Your task to perform on an android device: turn off location Image 0: 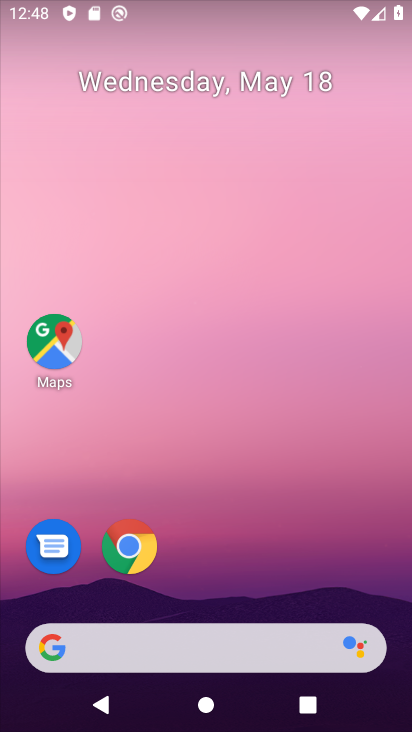
Step 0: drag from (271, 618) to (308, 94)
Your task to perform on an android device: turn off location Image 1: 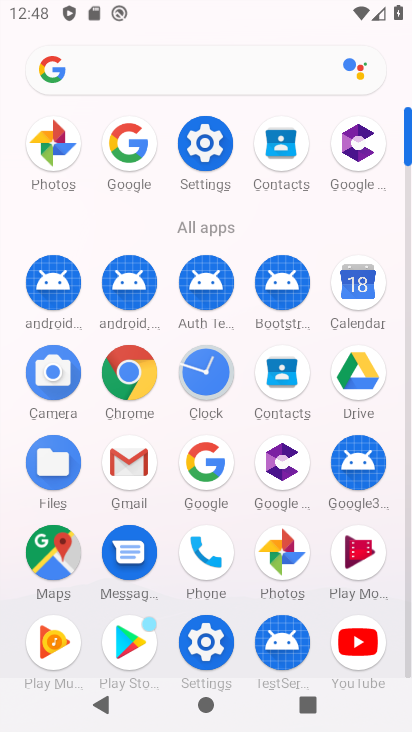
Step 1: click (206, 161)
Your task to perform on an android device: turn off location Image 2: 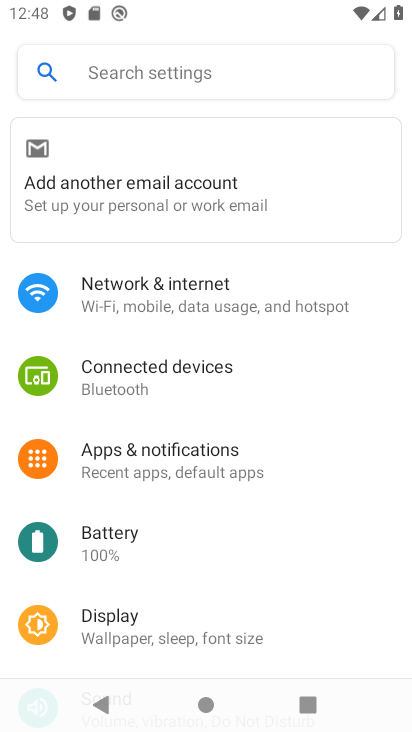
Step 2: drag from (261, 540) to (289, 260)
Your task to perform on an android device: turn off location Image 3: 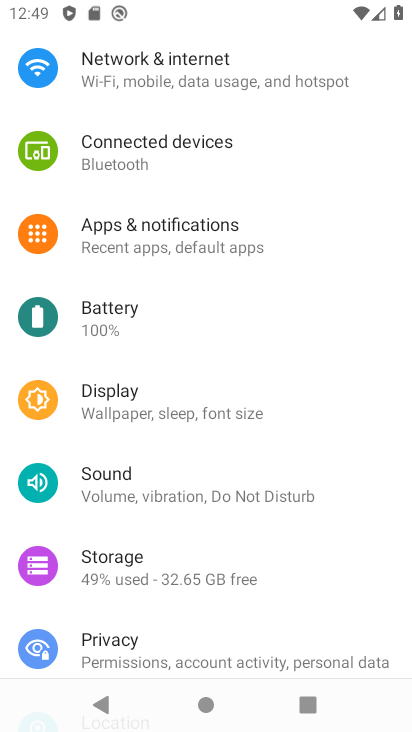
Step 3: drag from (234, 568) to (262, 224)
Your task to perform on an android device: turn off location Image 4: 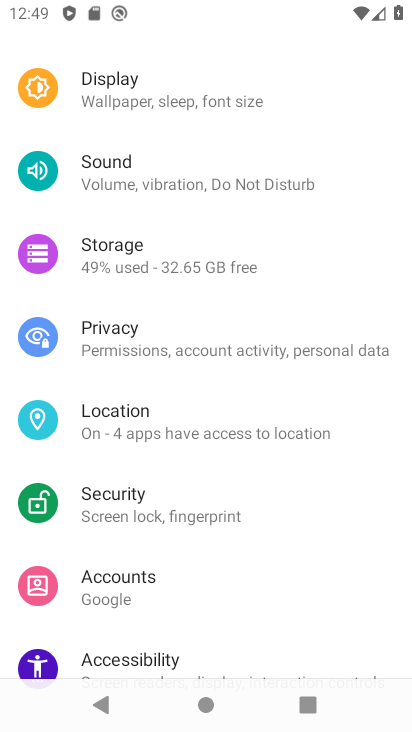
Step 4: click (227, 427)
Your task to perform on an android device: turn off location Image 5: 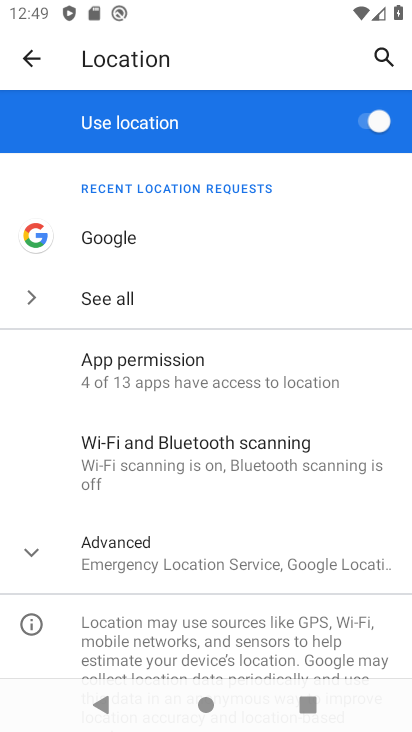
Step 5: drag from (234, 535) to (246, 633)
Your task to perform on an android device: turn off location Image 6: 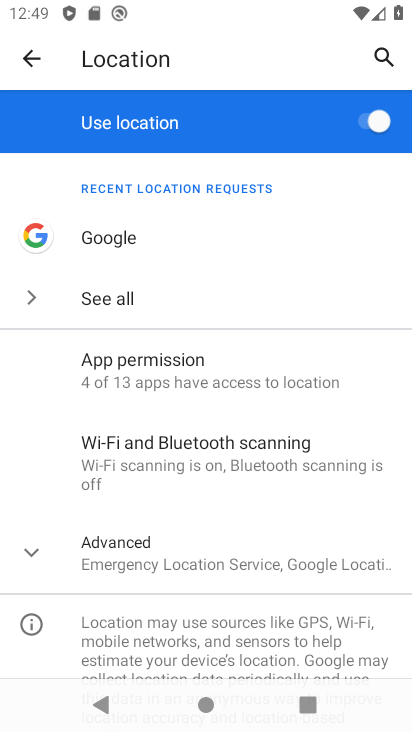
Step 6: click (364, 111)
Your task to perform on an android device: turn off location Image 7: 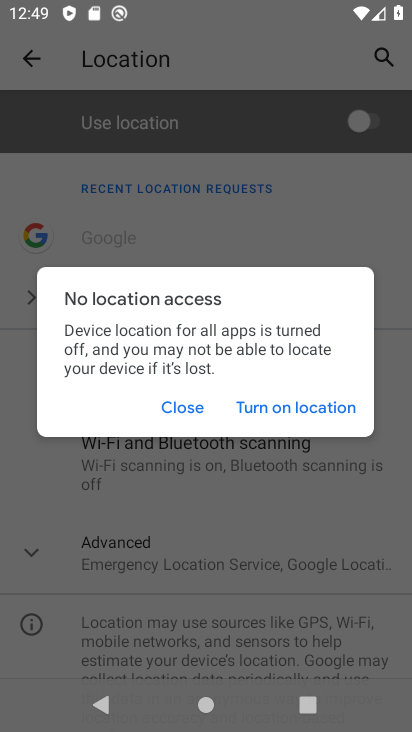
Step 7: press home button
Your task to perform on an android device: turn off location Image 8: 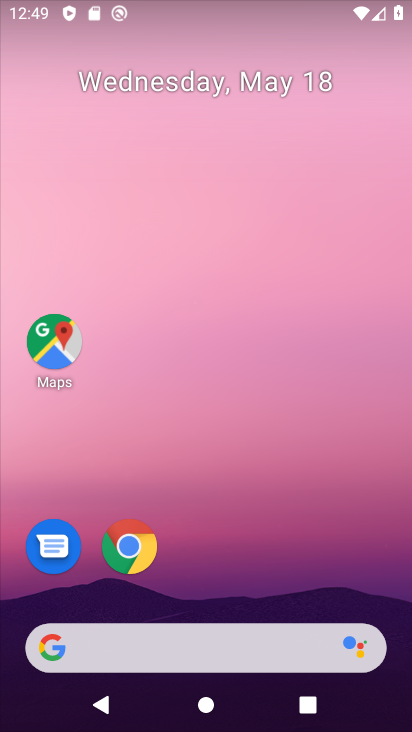
Step 8: drag from (265, 629) to (341, 33)
Your task to perform on an android device: turn off location Image 9: 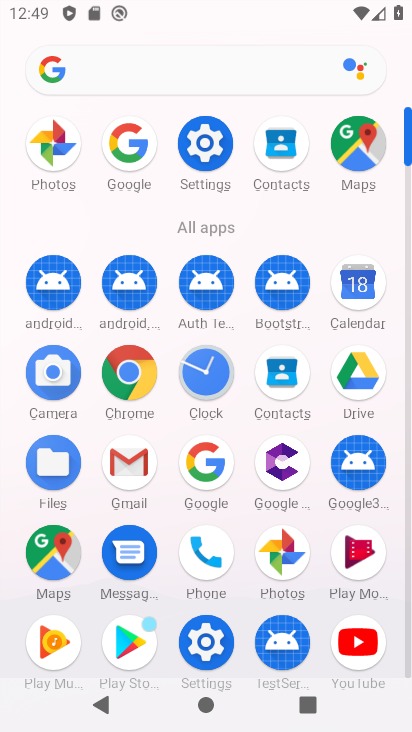
Step 9: click (220, 160)
Your task to perform on an android device: turn off location Image 10: 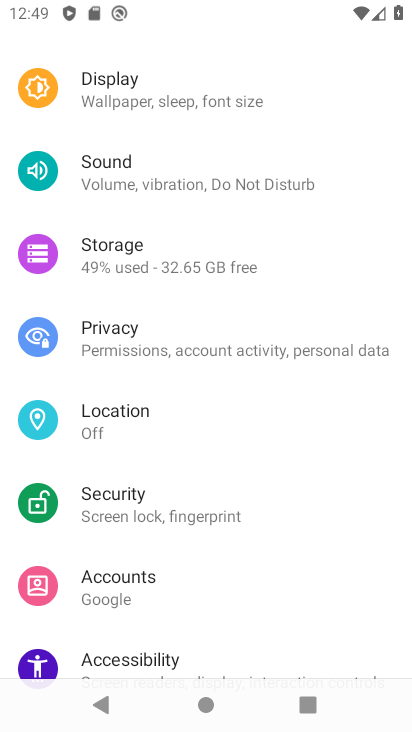
Step 10: click (197, 403)
Your task to perform on an android device: turn off location Image 11: 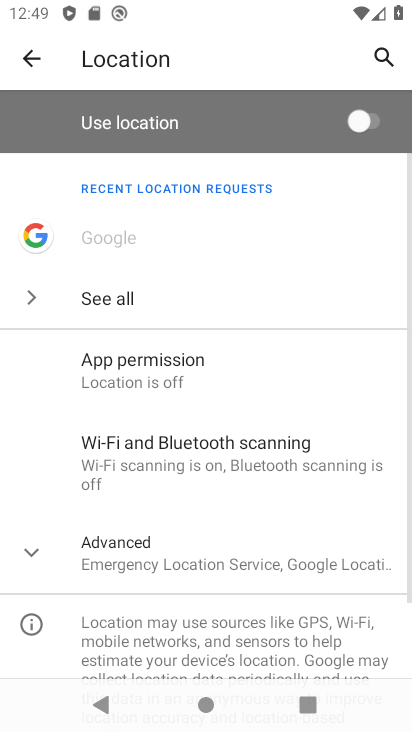
Step 11: task complete